Your task to perform on an android device: Open maps Image 0: 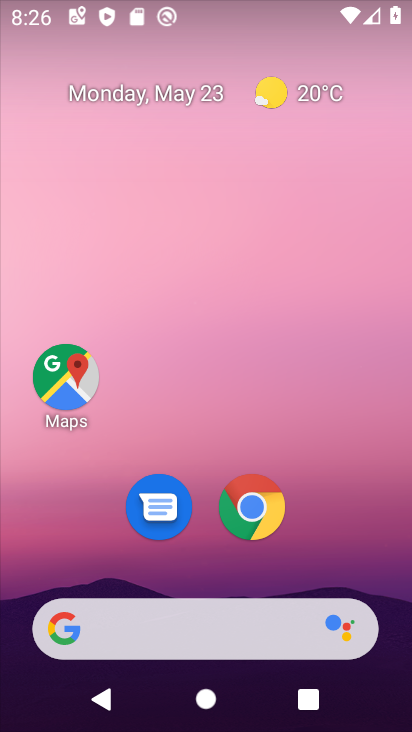
Step 0: click (68, 379)
Your task to perform on an android device: Open maps Image 1: 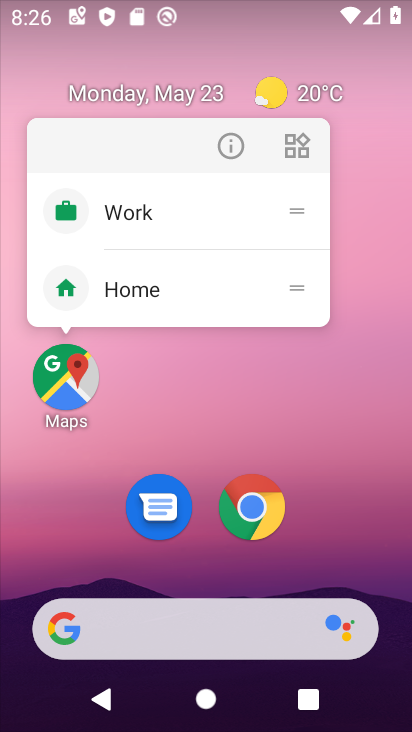
Step 1: click (63, 382)
Your task to perform on an android device: Open maps Image 2: 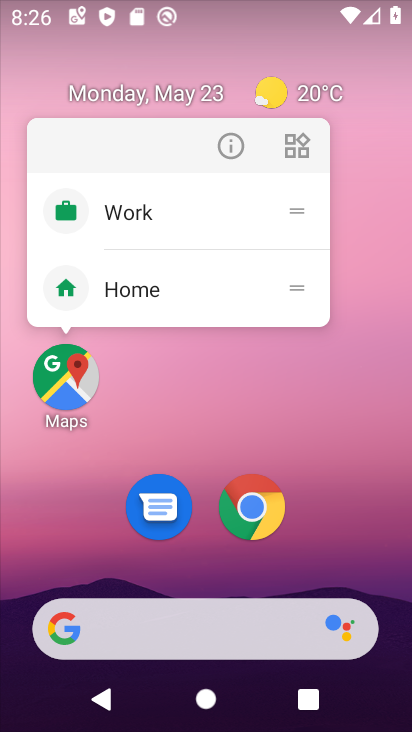
Step 2: click (65, 384)
Your task to perform on an android device: Open maps Image 3: 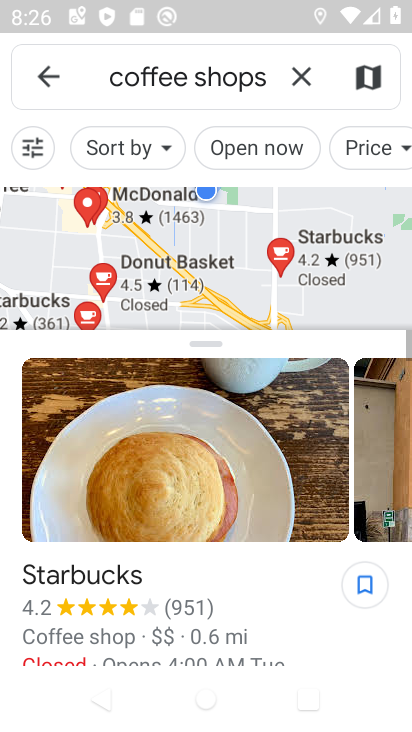
Step 3: task complete